Your task to perform on an android device: Open settings on Google Maps Image 0: 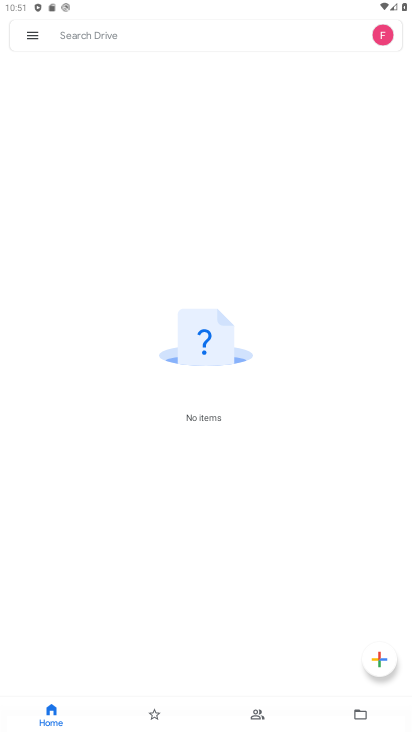
Step 0: press home button
Your task to perform on an android device: Open settings on Google Maps Image 1: 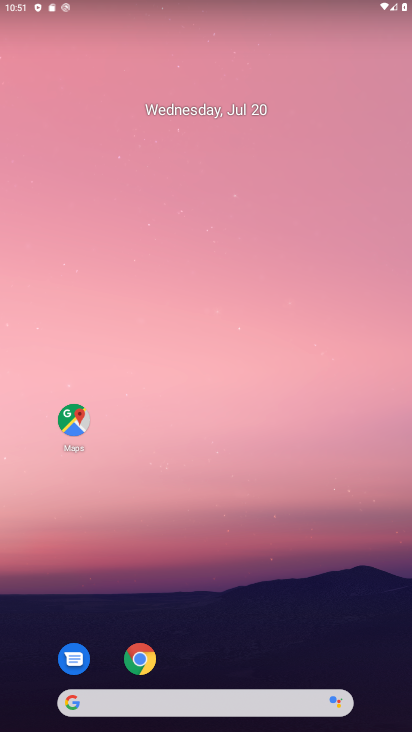
Step 1: click (70, 420)
Your task to perform on an android device: Open settings on Google Maps Image 2: 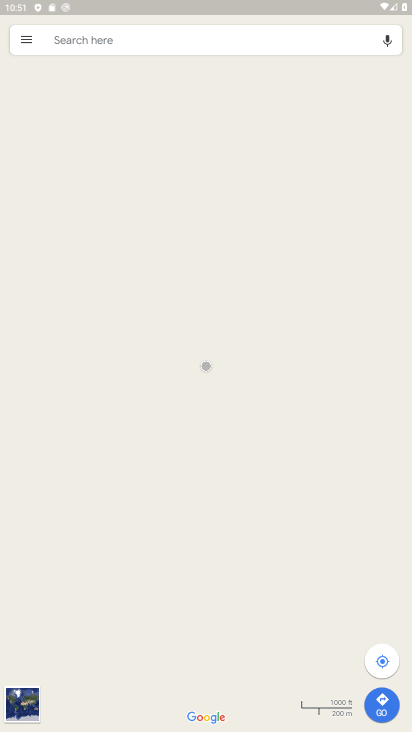
Step 2: click (27, 34)
Your task to perform on an android device: Open settings on Google Maps Image 3: 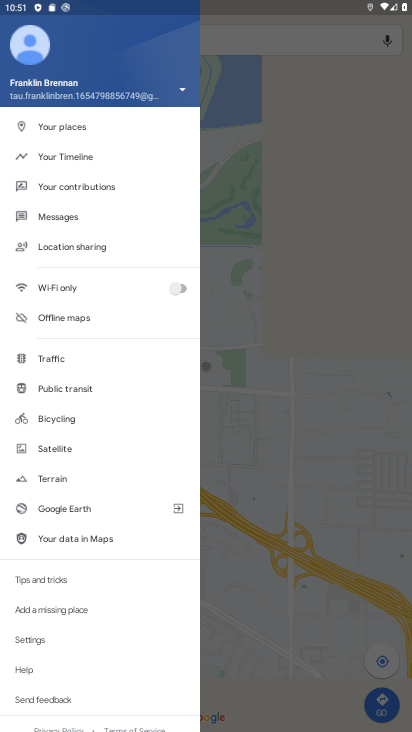
Step 3: click (46, 639)
Your task to perform on an android device: Open settings on Google Maps Image 4: 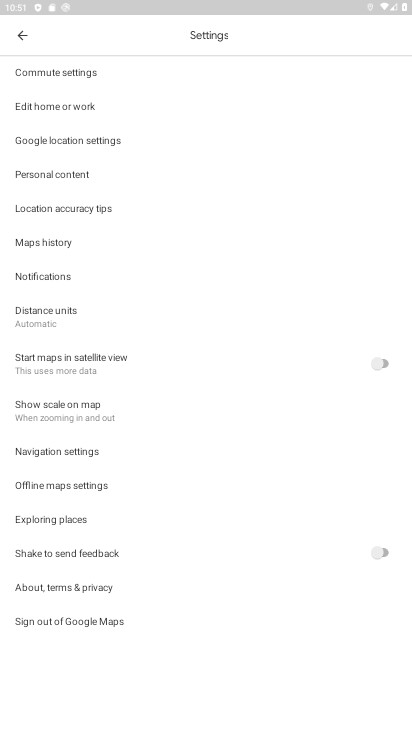
Step 4: task complete